Your task to perform on an android device: turn on sleep mode Image 0: 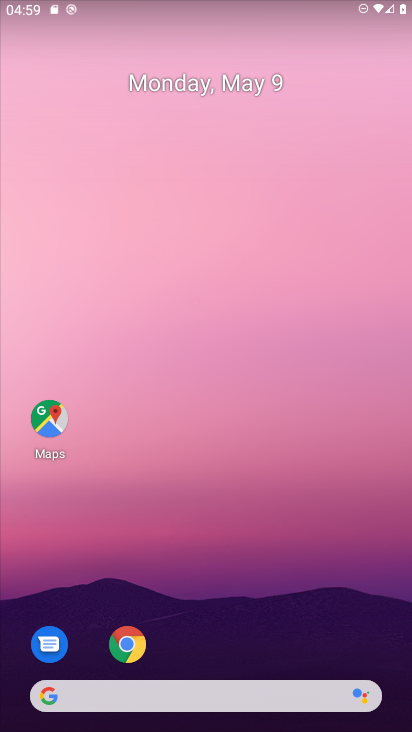
Step 0: drag from (226, 629) to (183, 56)
Your task to perform on an android device: turn on sleep mode Image 1: 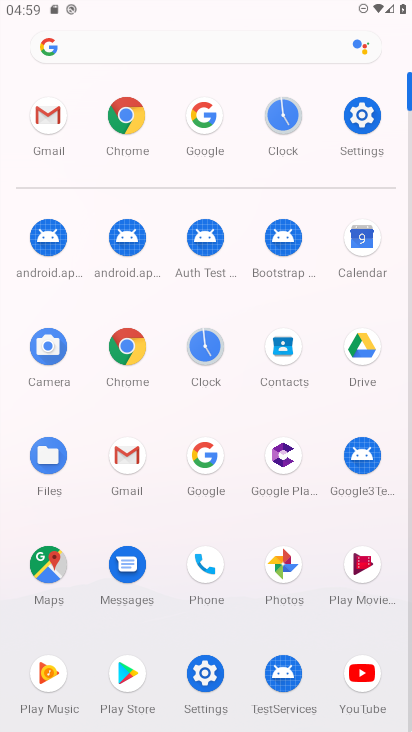
Step 1: click (202, 673)
Your task to perform on an android device: turn on sleep mode Image 2: 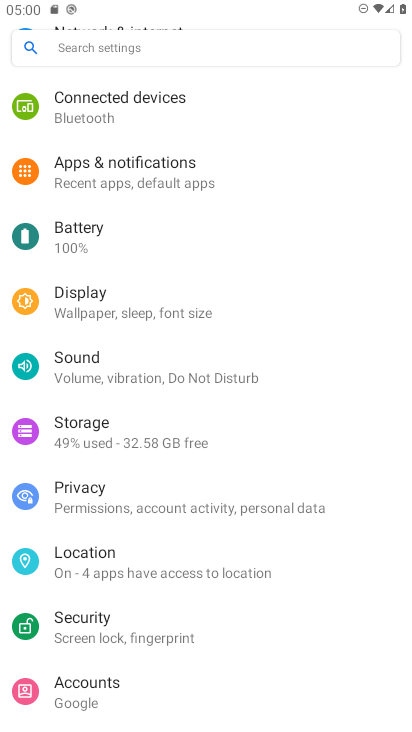
Step 2: click (114, 154)
Your task to perform on an android device: turn on sleep mode Image 3: 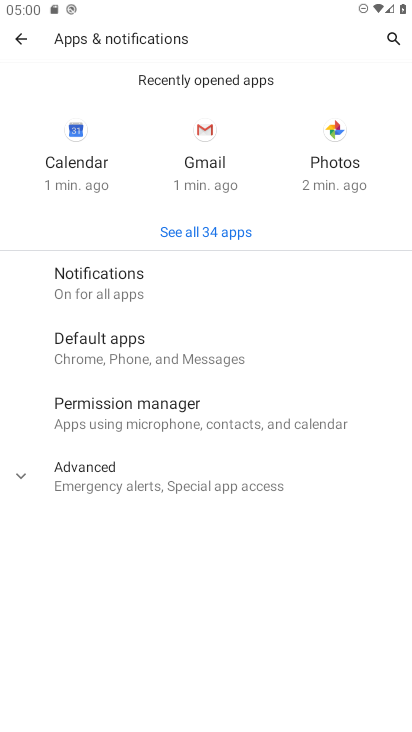
Step 3: press back button
Your task to perform on an android device: turn on sleep mode Image 4: 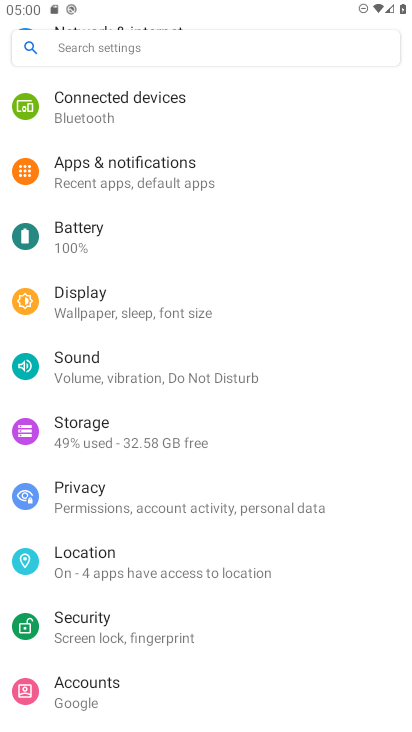
Step 4: click (123, 311)
Your task to perform on an android device: turn on sleep mode Image 5: 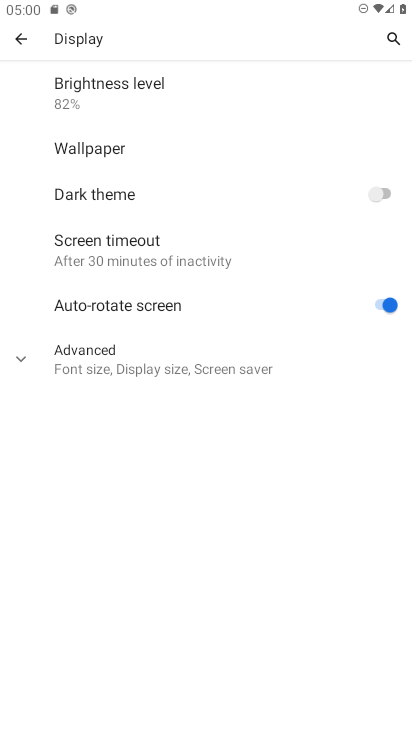
Step 5: task complete